Your task to perform on an android device: set an alarm Image 0: 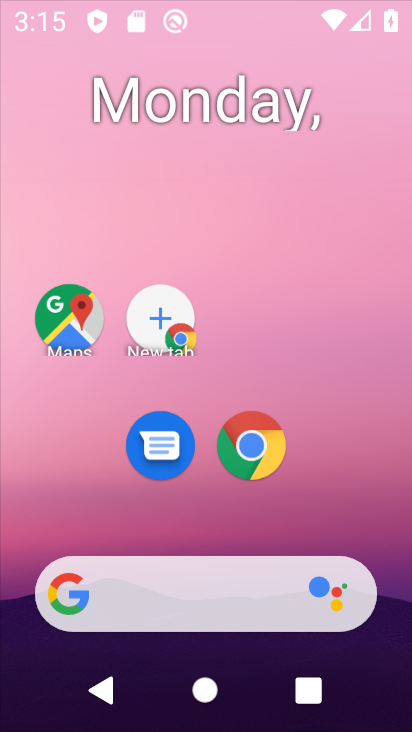
Step 0: press home button
Your task to perform on an android device: set an alarm Image 1: 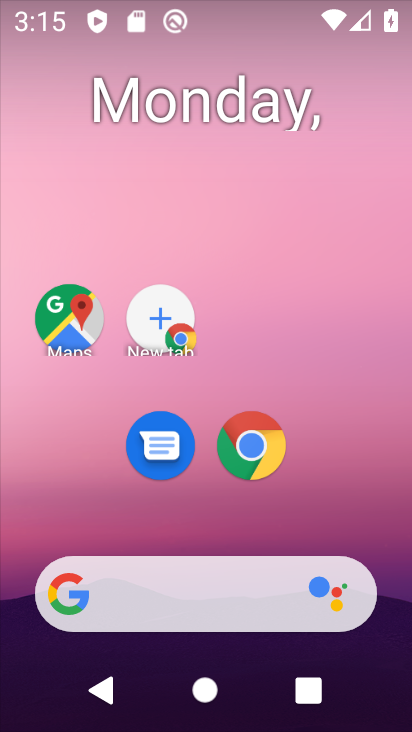
Step 1: drag from (204, 513) to (181, 147)
Your task to perform on an android device: set an alarm Image 2: 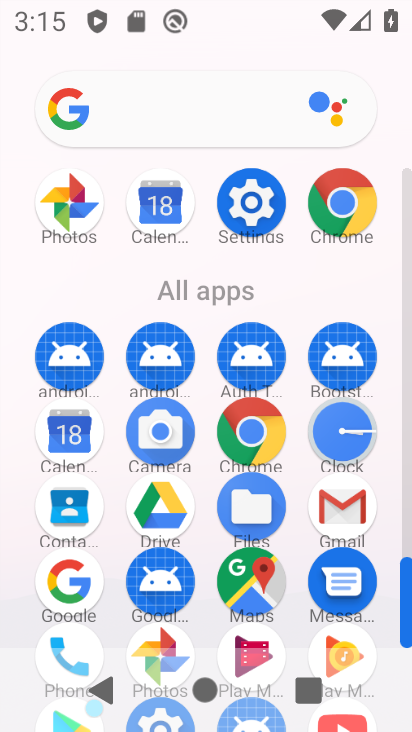
Step 2: click (349, 426)
Your task to perform on an android device: set an alarm Image 3: 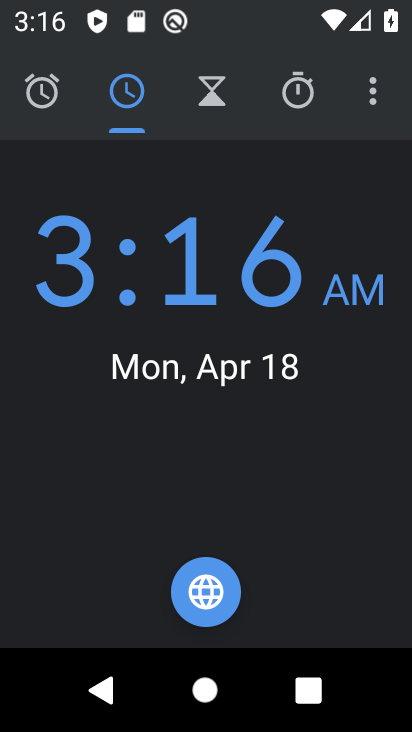
Step 3: click (37, 96)
Your task to perform on an android device: set an alarm Image 4: 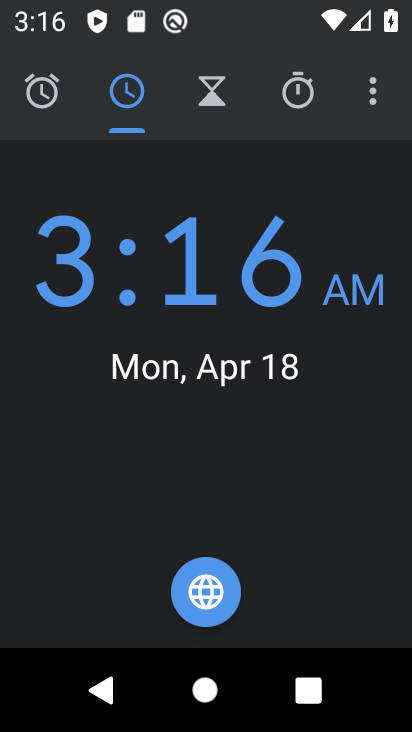
Step 4: click (41, 87)
Your task to perform on an android device: set an alarm Image 5: 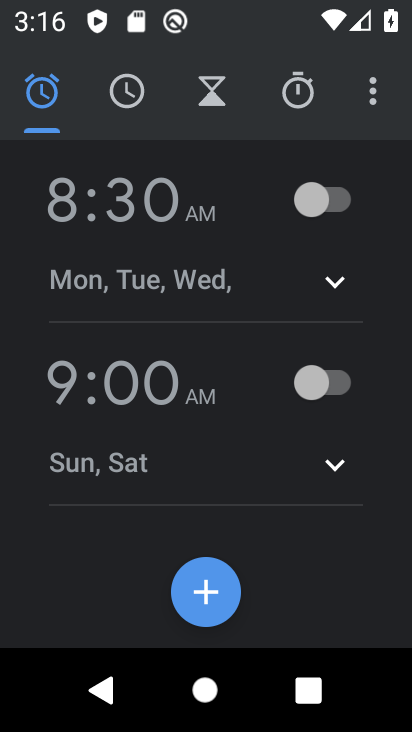
Step 5: click (136, 190)
Your task to perform on an android device: set an alarm Image 6: 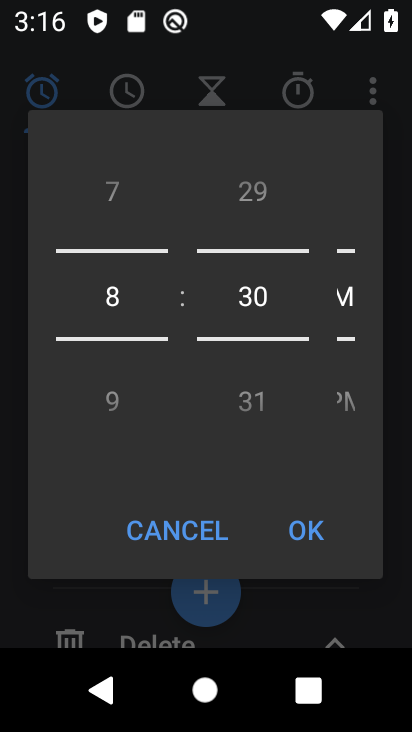
Step 6: task complete